Your task to perform on an android device: open app "Roku - Official Remote Control" (install if not already installed) Image 0: 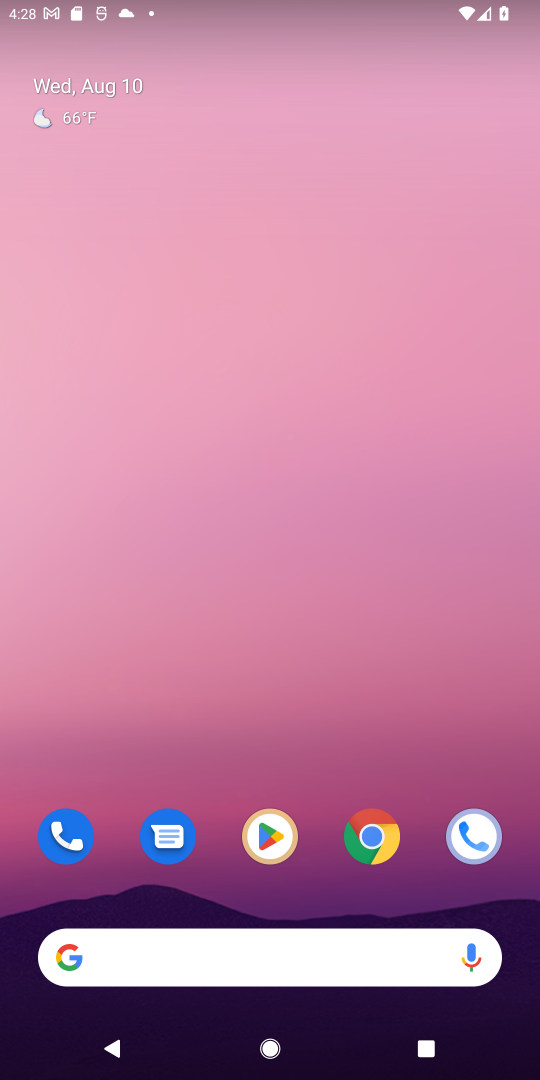
Step 0: drag from (317, 911) to (331, 232)
Your task to perform on an android device: open app "Roku - Official Remote Control" (install if not already installed) Image 1: 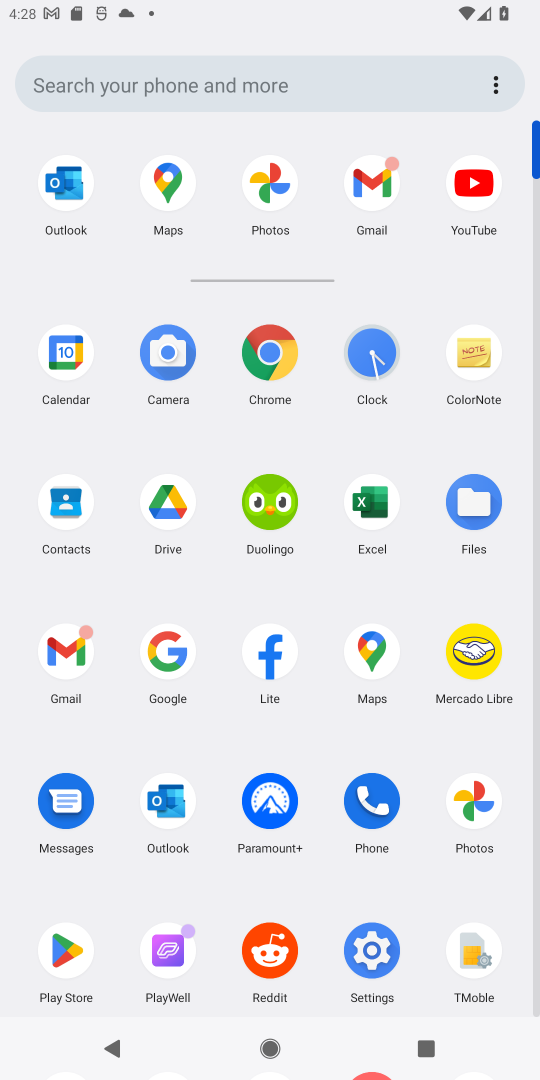
Step 1: click (84, 928)
Your task to perform on an android device: open app "Roku - Official Remote Control" (install if not already installed) Image 2: 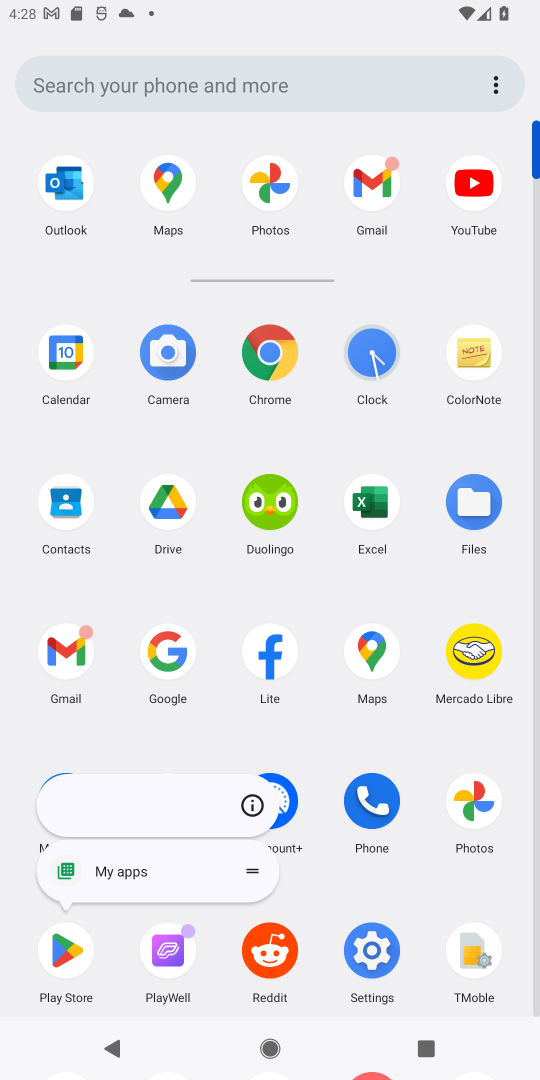
Step 2: click (61, 944)
Your task to perform on an android device: open app "Roku - Official Remote Control" (install if not already installed) Image 3: 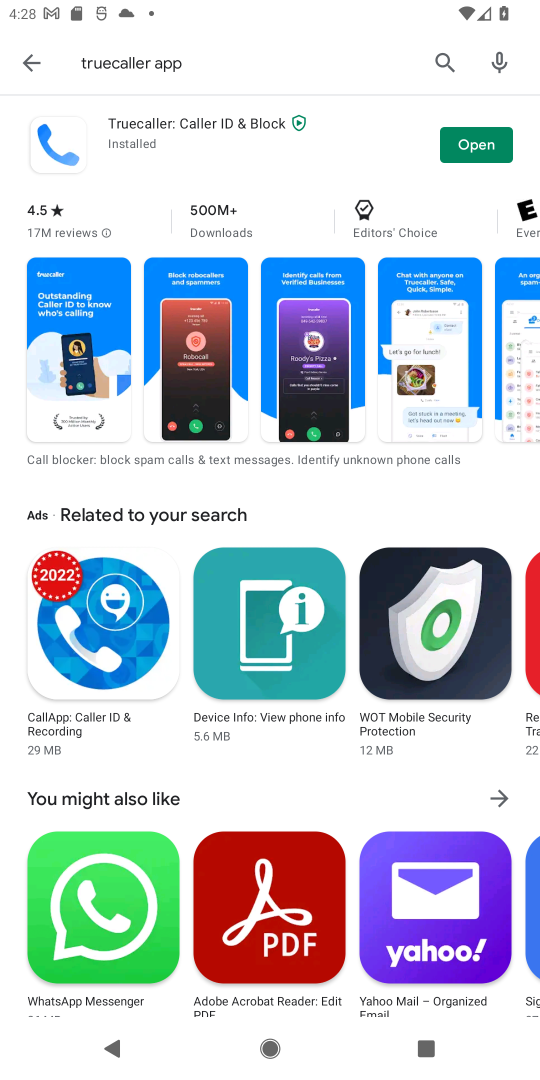
Step 3: click (49, 68)
Your task to perform on an android device: open app "Roku - Official Remote Control" (install if not already installed) Image 4: 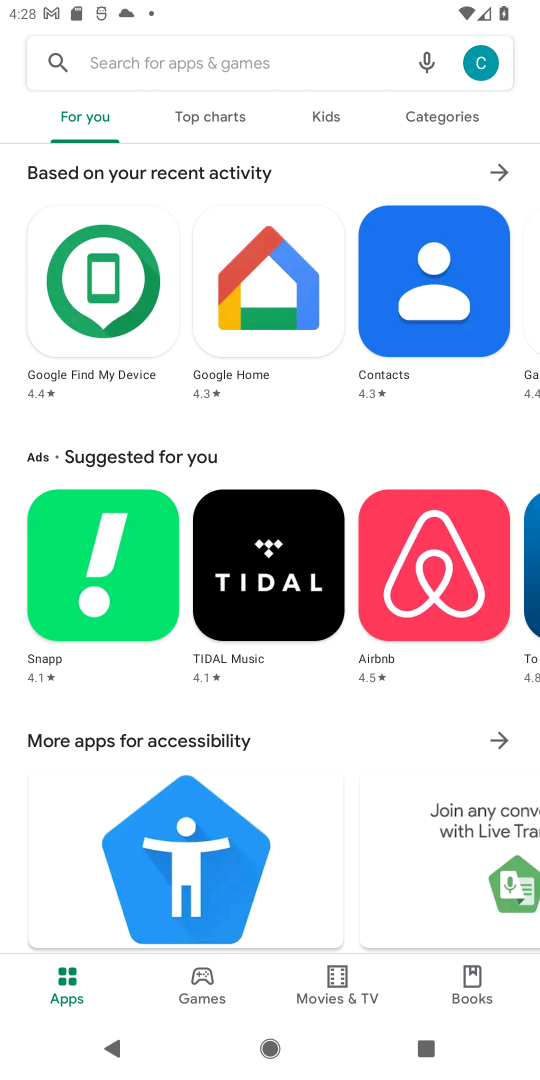
Step 4: click (256, 69)
Your task to perform on an android device: open app "Roku - Official Remote Control" (install if not already installed) Image 5: 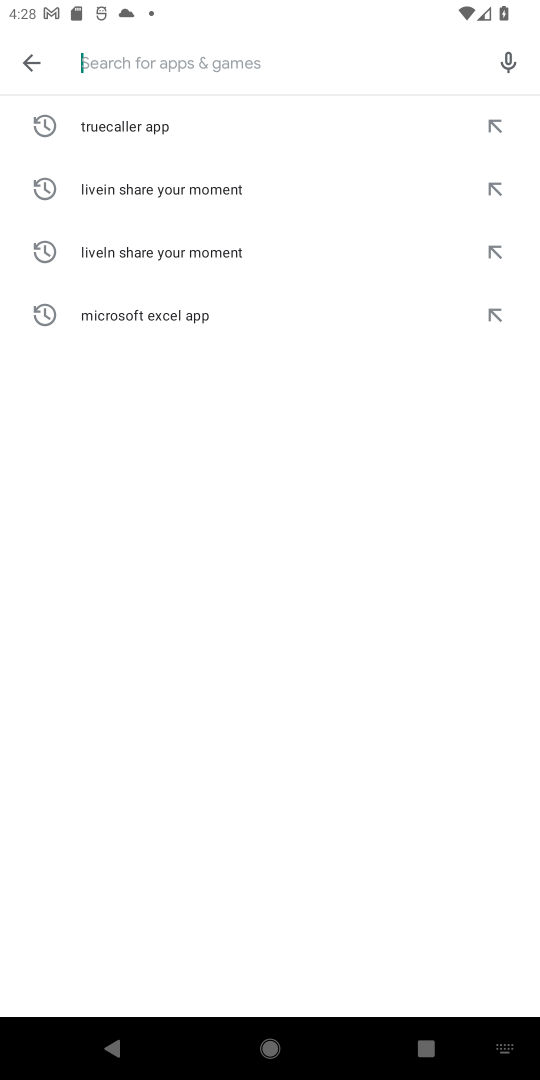
Step 5: type "roku "
Your task to perform on an android device: open app "Roku - Official Remote Control" (install if not already installed) Image 6: 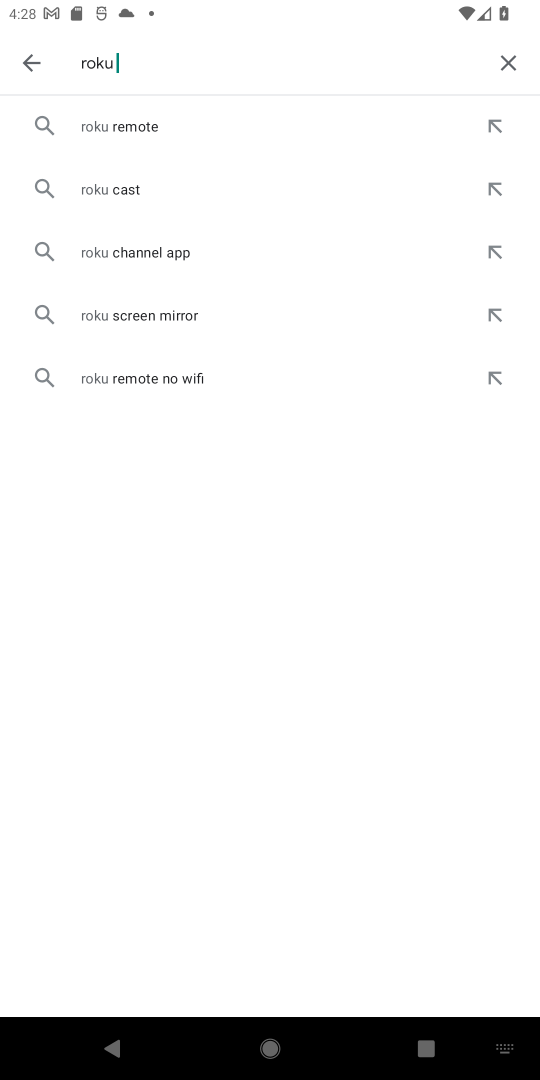
Step 6: click (47, 62)
Your task to perform on an android device: open app "Roku - Official Remote Control" (install if not already installed) Image 7: 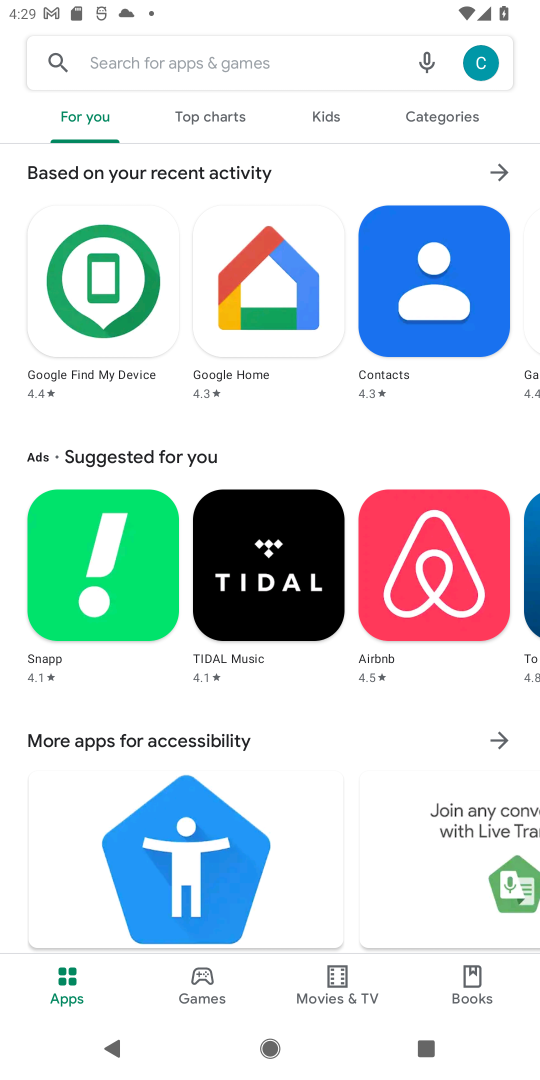
Step 7: click (322, 50)
Your task to perform on an android device: open app "Roku - Official Remote Control" (install if not already installed) Image 8: 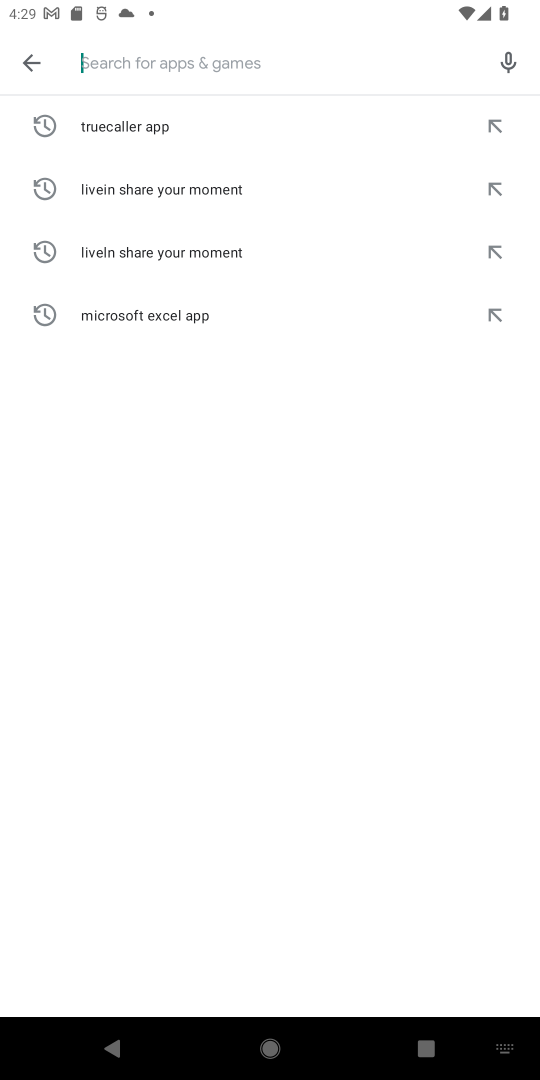
Step 8: type ""Roku - Official Remote Control "
Your task to perform on an android device: open app "Roku - Official Remote Control" (install if not already installed) Image 9: 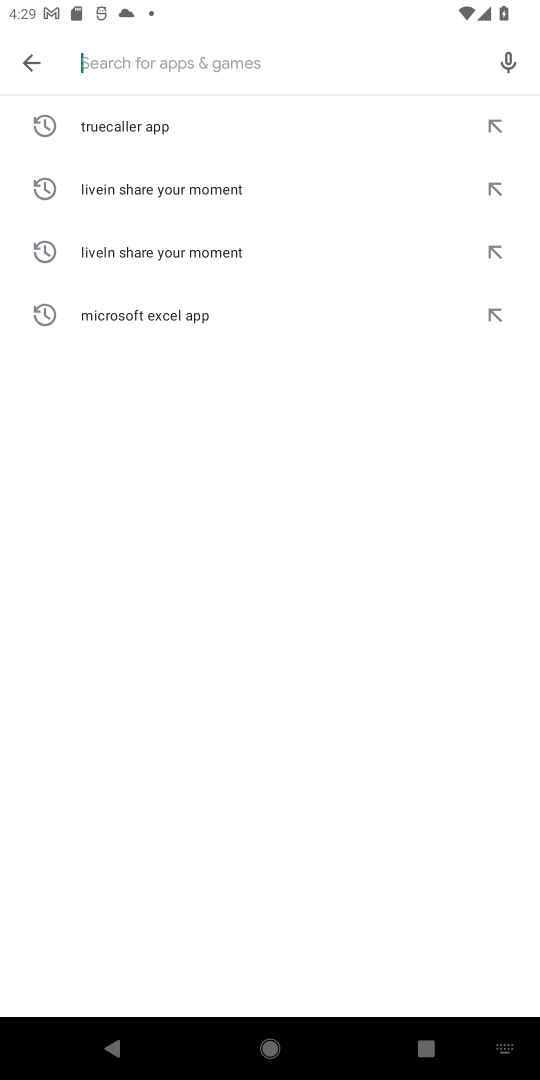
Step 9: click (163, 61)
Your task to perform on an android device: open app "Roku - Official Remote Control" (install if not already installed) Image 10: 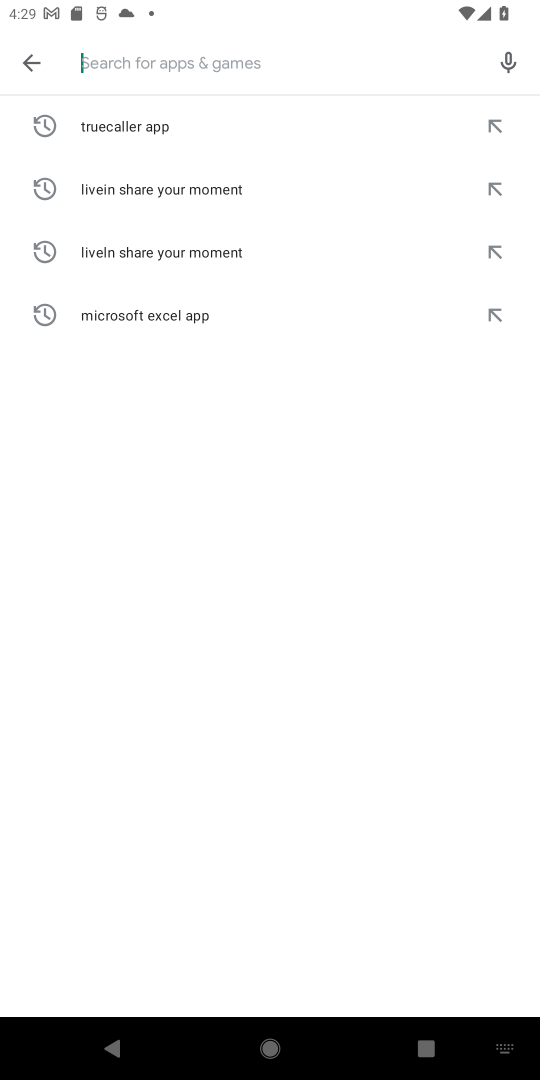
Step 10: type ""Roku - Official Remote Control "
Your task to perform on an android device: open app "Roku - Official Remote Control" (install if not already installed) Image 11: 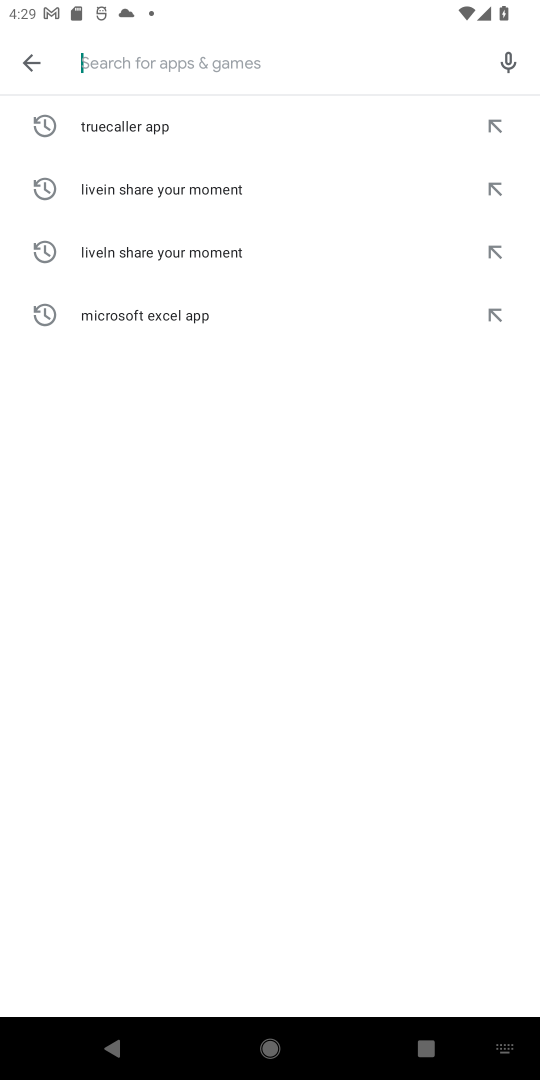
Step 11: click (230, 47)
Your task to perform on an android device: open app "Roku - Official Remote Control" (install if not already installed) Image 12: 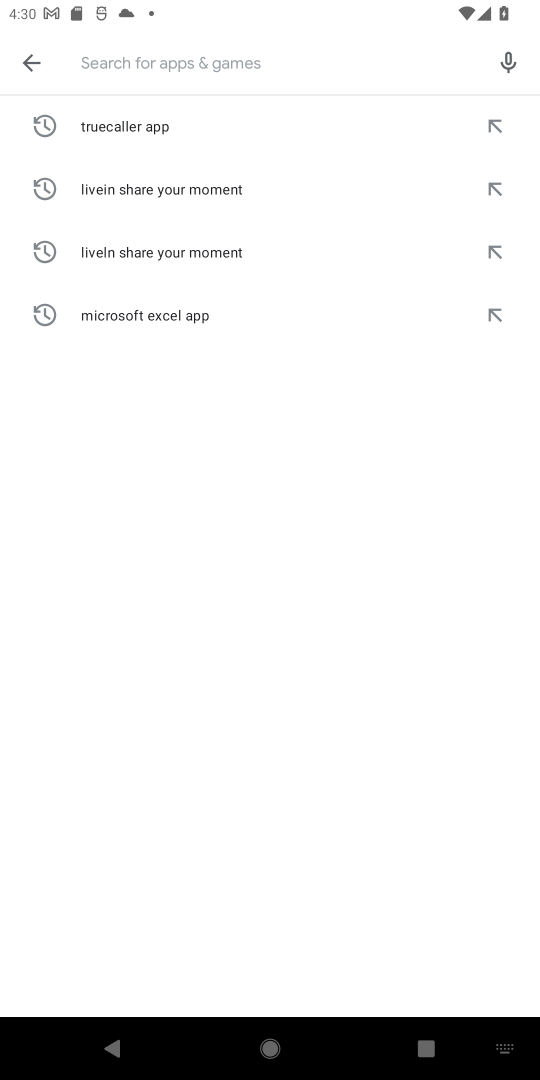
Step 12: type " Roku - Official Remote Control"
Your task to perform on an android device: open app "Roku - Official Remote Control" (install if not already installed) Image 13: 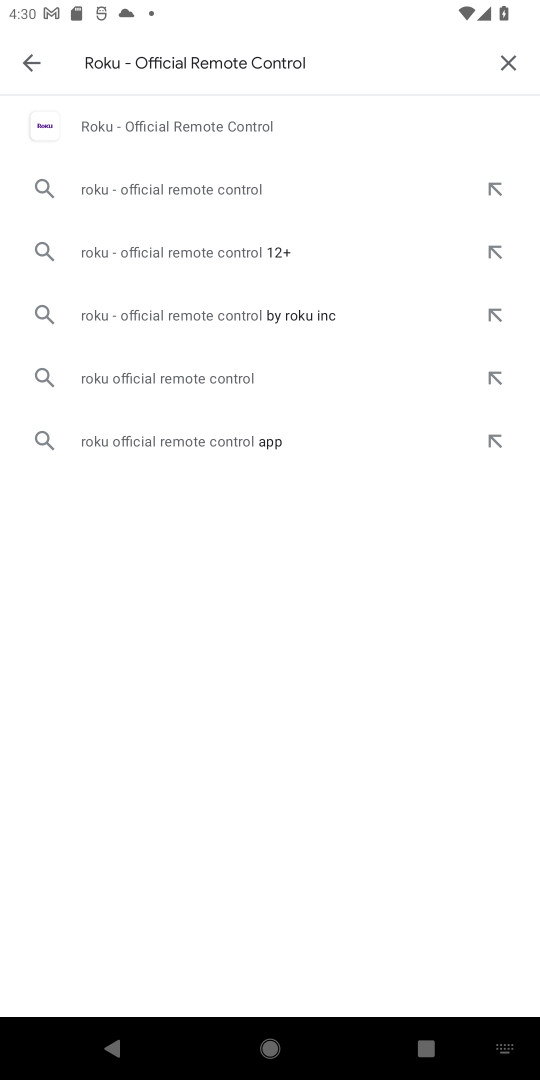
Step 13: click (208, 116)
Your task to perform on an android device: open app "Roku - Official Remote Control" (install if not already installed) Image 14: 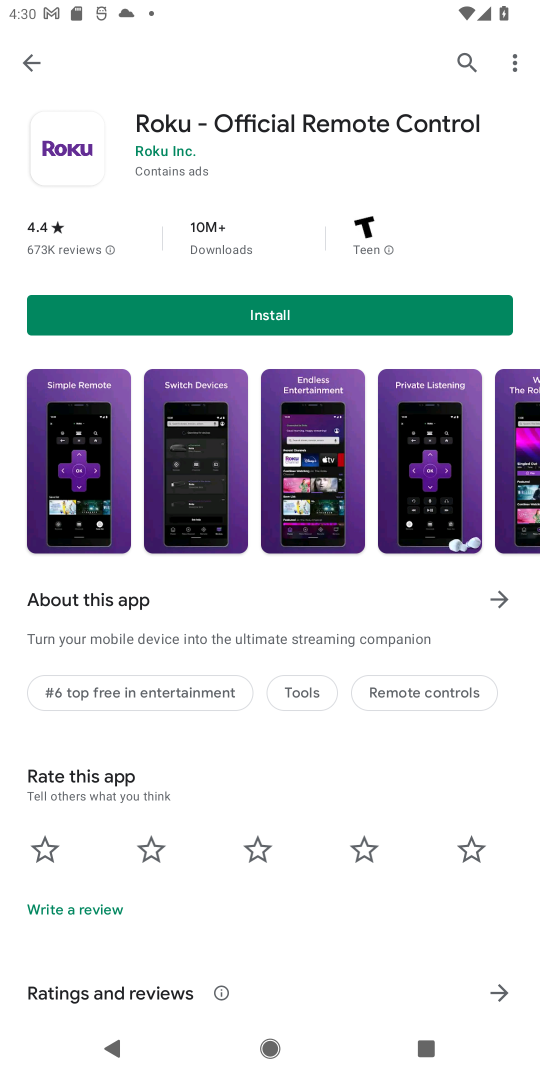
Step 14: click (245, 298)
Your task to perform on an android device: open app "Roku - Official Remote Control" (install if not already installed) Image 15: 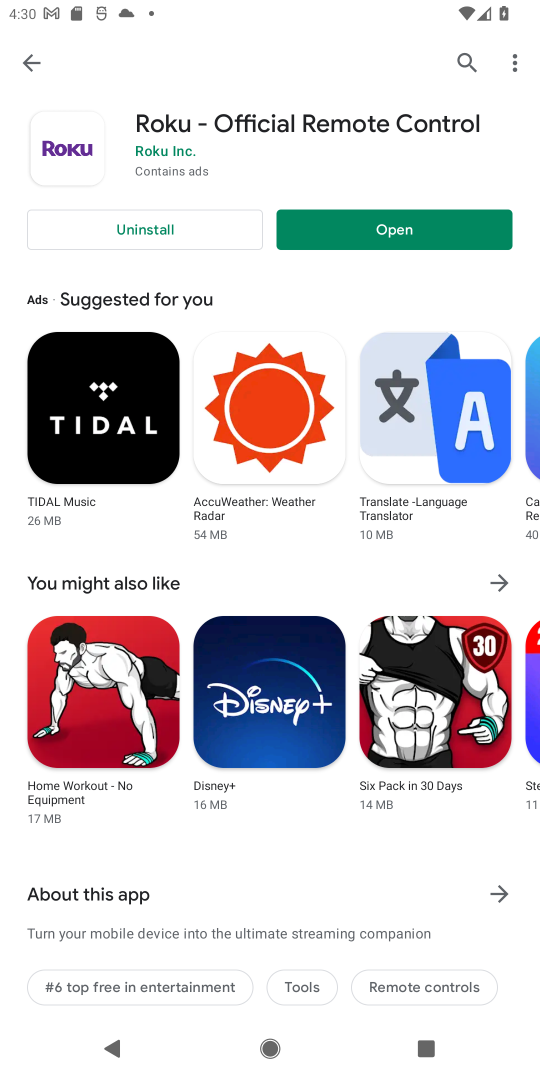
Step 15: click (332, 221)
Your task to perform on an android device: open app "Roku - Official Remote Control" (install if not already installed) Image 16: 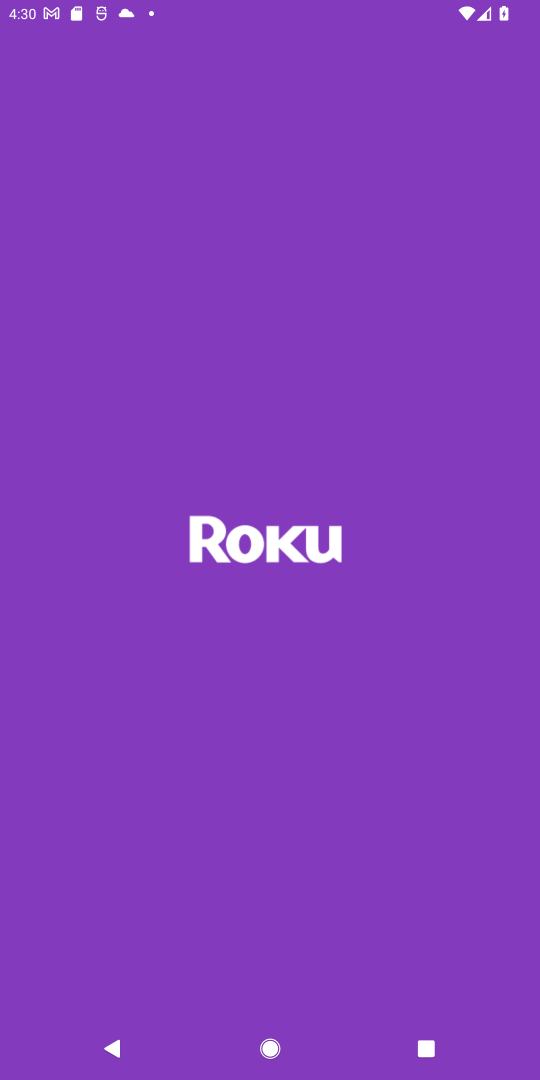
Step 16: task complete